Your task to perform on an android device: Open Wikipedia Image 0: 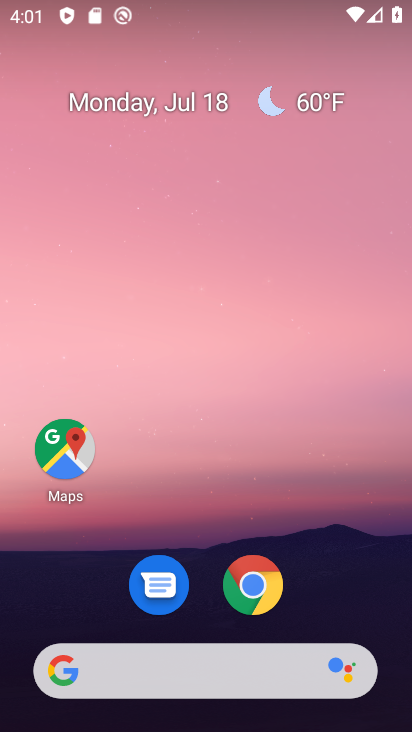
Step 0: click (262, 576)
Your task to perform on an android device: Open Wikipedia Image 1: 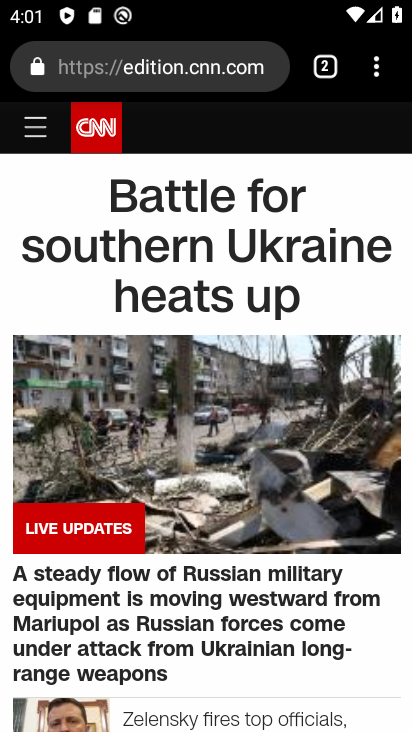
Step 1: click (373, 79)
Your task to perform on an android device: Open Wikipedia Image 2: 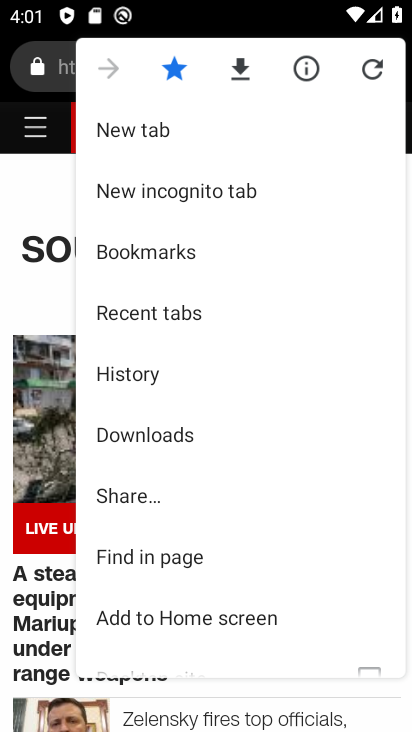
Step 2: click (233, 130)
Your task to perform on an android device: Open Wikipedia Image 3: 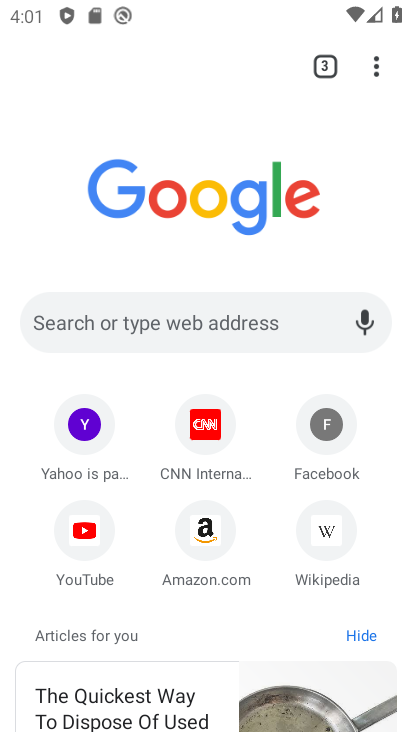
Step 3: click (332, 531)
Your task to perform on an android device: Open Wikipedia Image 4: 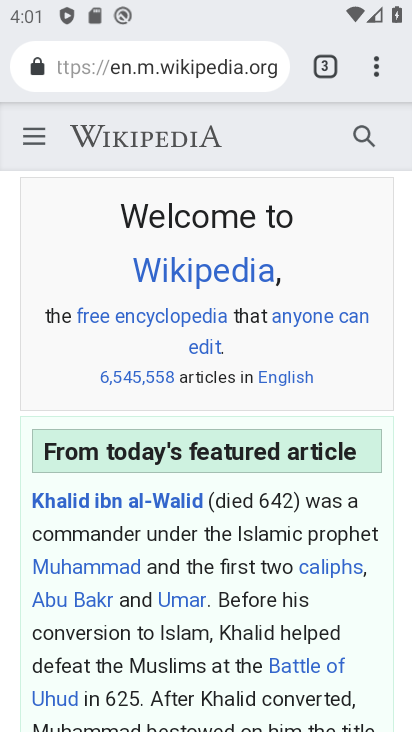
Step 4: task complete